Your task to perform on an android device: Turn off the flashlight Image 0: 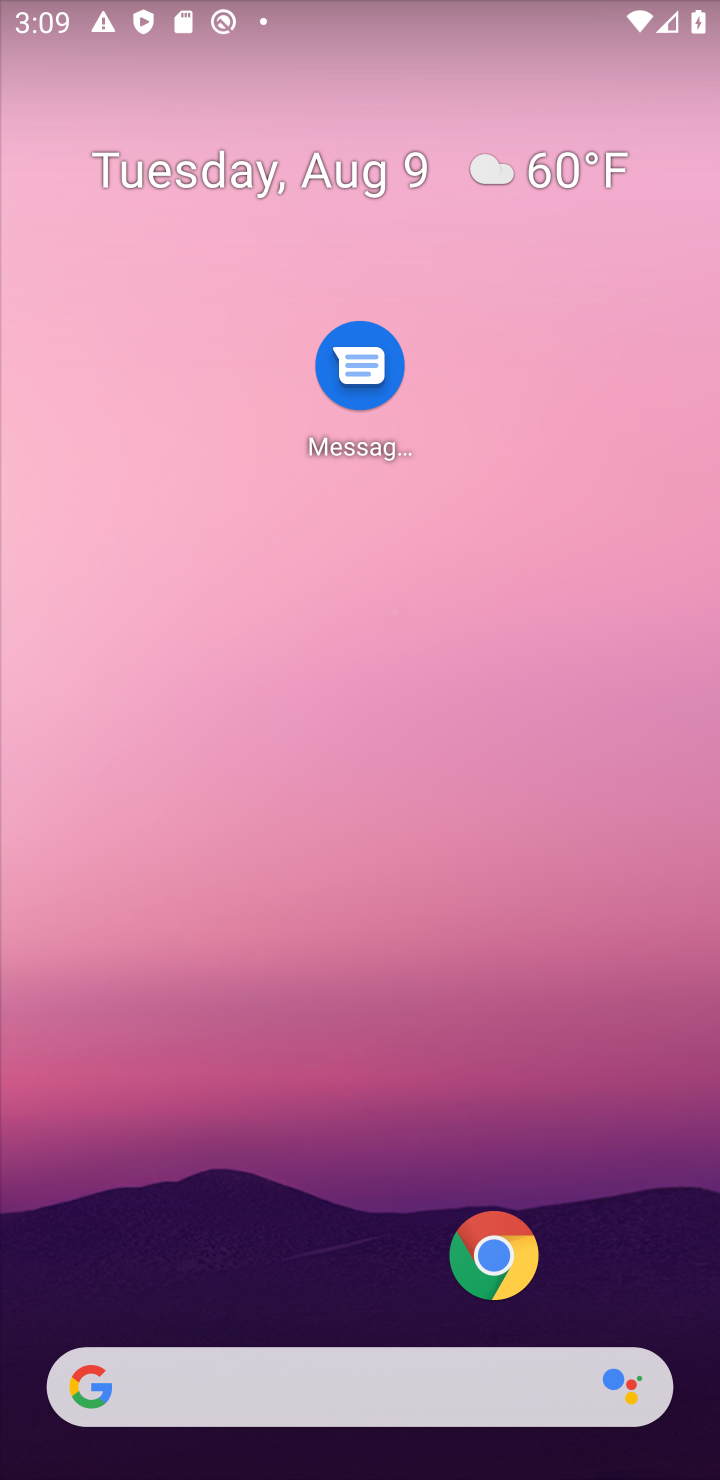
Step 0: drag from (342, 900) to (365, 438)
Your task to perform on an android device: Turn off the flashlight Image 1: 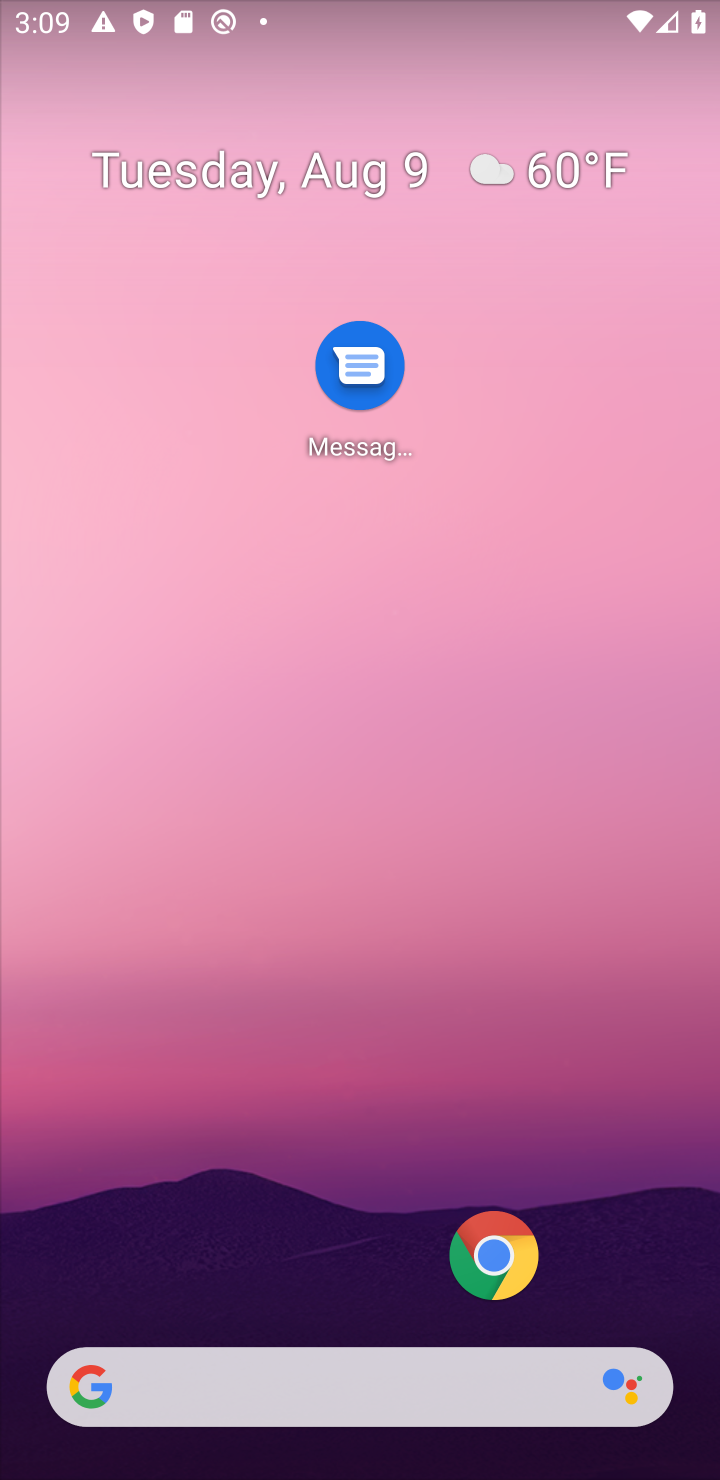
Step 1: drag from (118, 1321) to (312, 467)
Your task to perform on an android device: Turn off the flashlight Image 2: 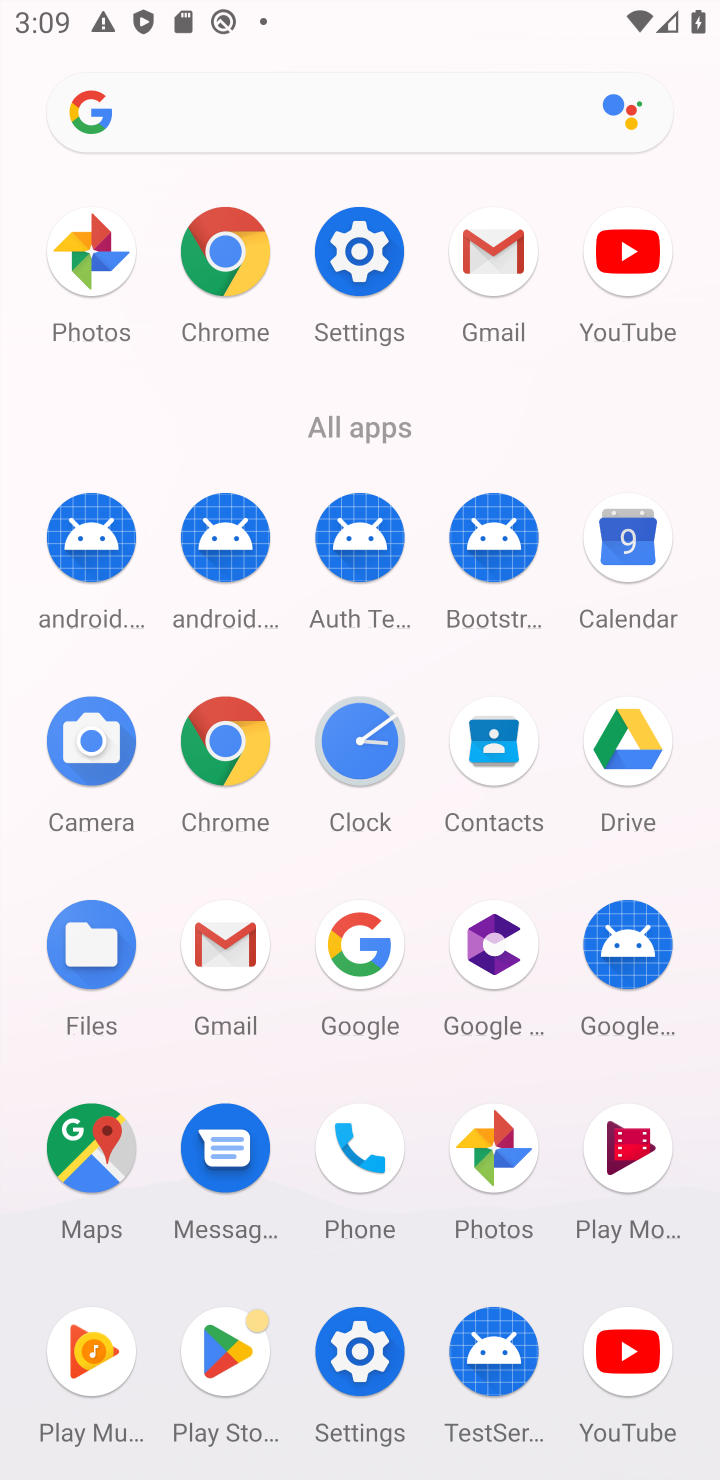
Step 2: click (333, 243)
Your task to perform on an android device: Turn off the flashlight Image 3: 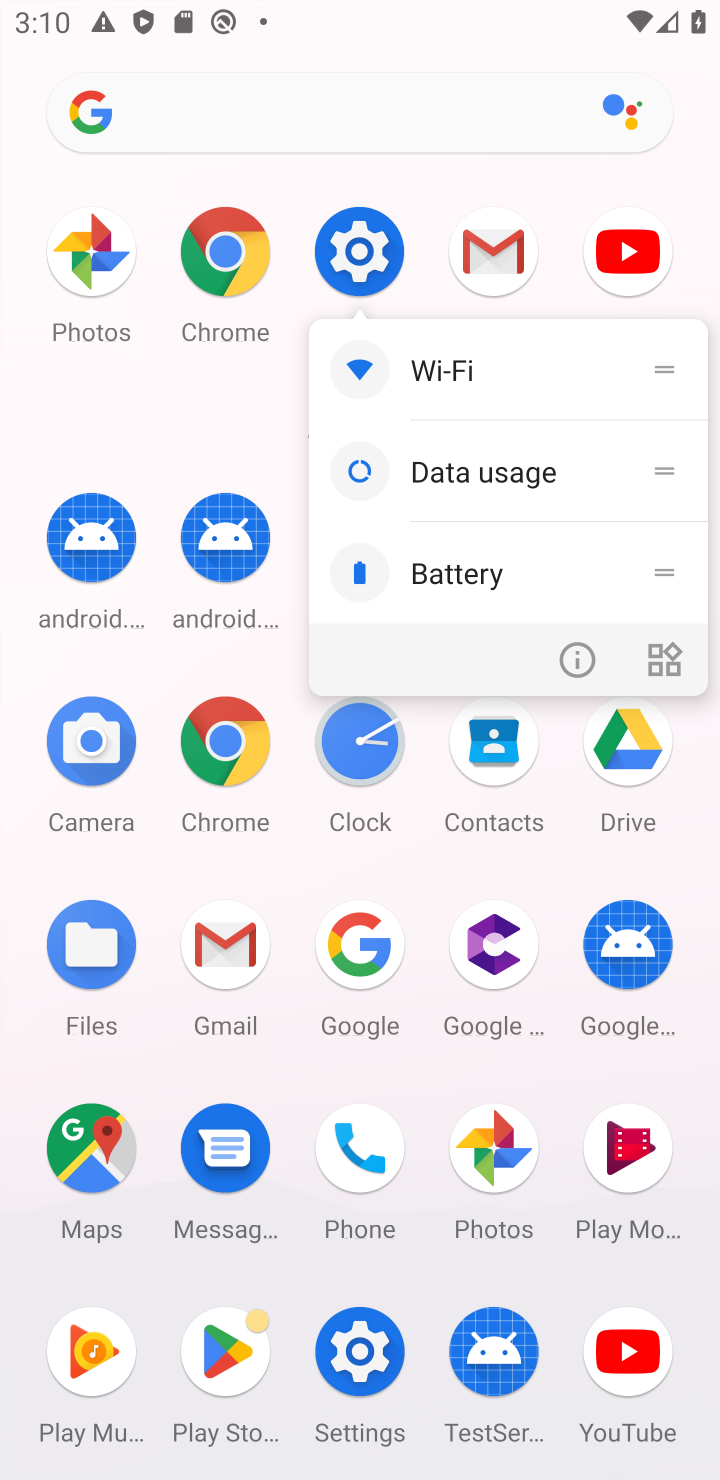
Step 3: click (333, 243)
Your task to perform on an android device: Turn off the flashlight Image 4: 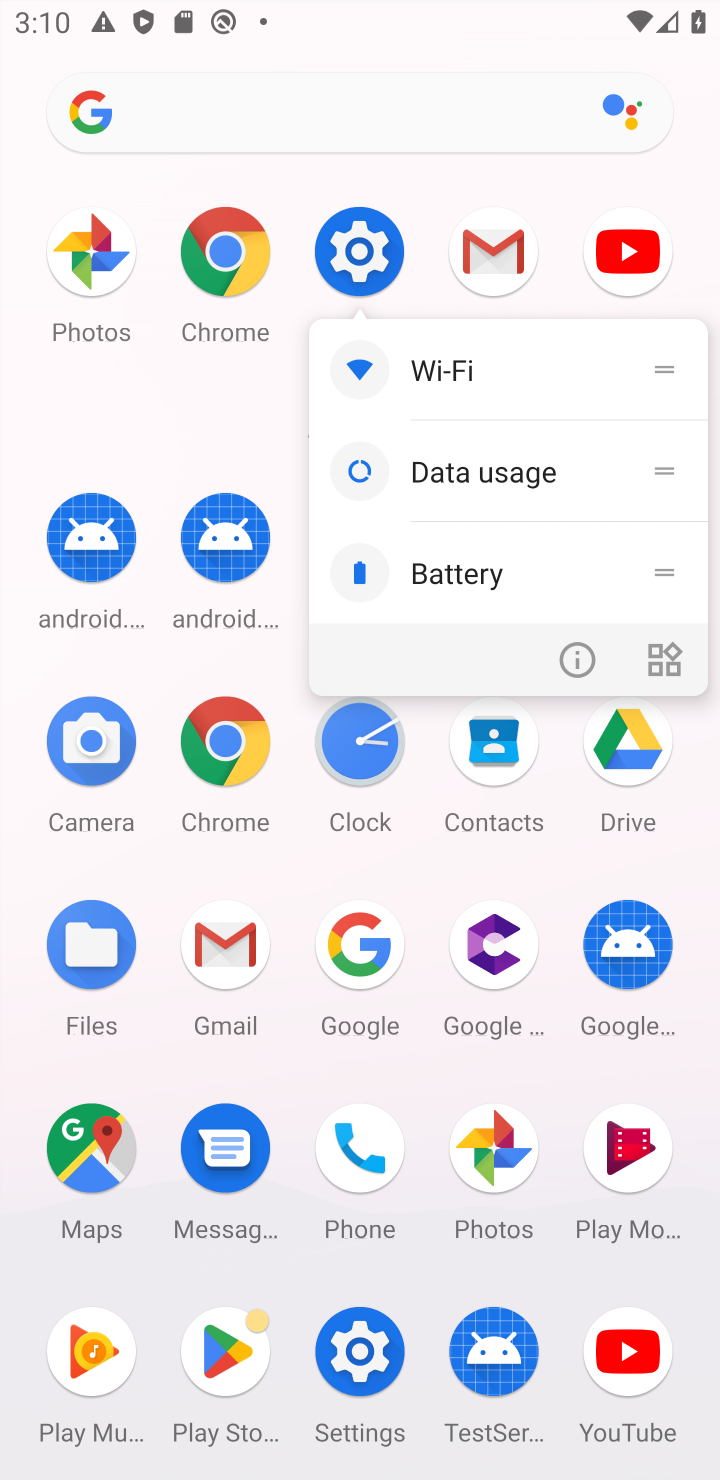
Step 4: click (374, 231)
Your task to perform on an android device: Turn off the flashlight Image 5: 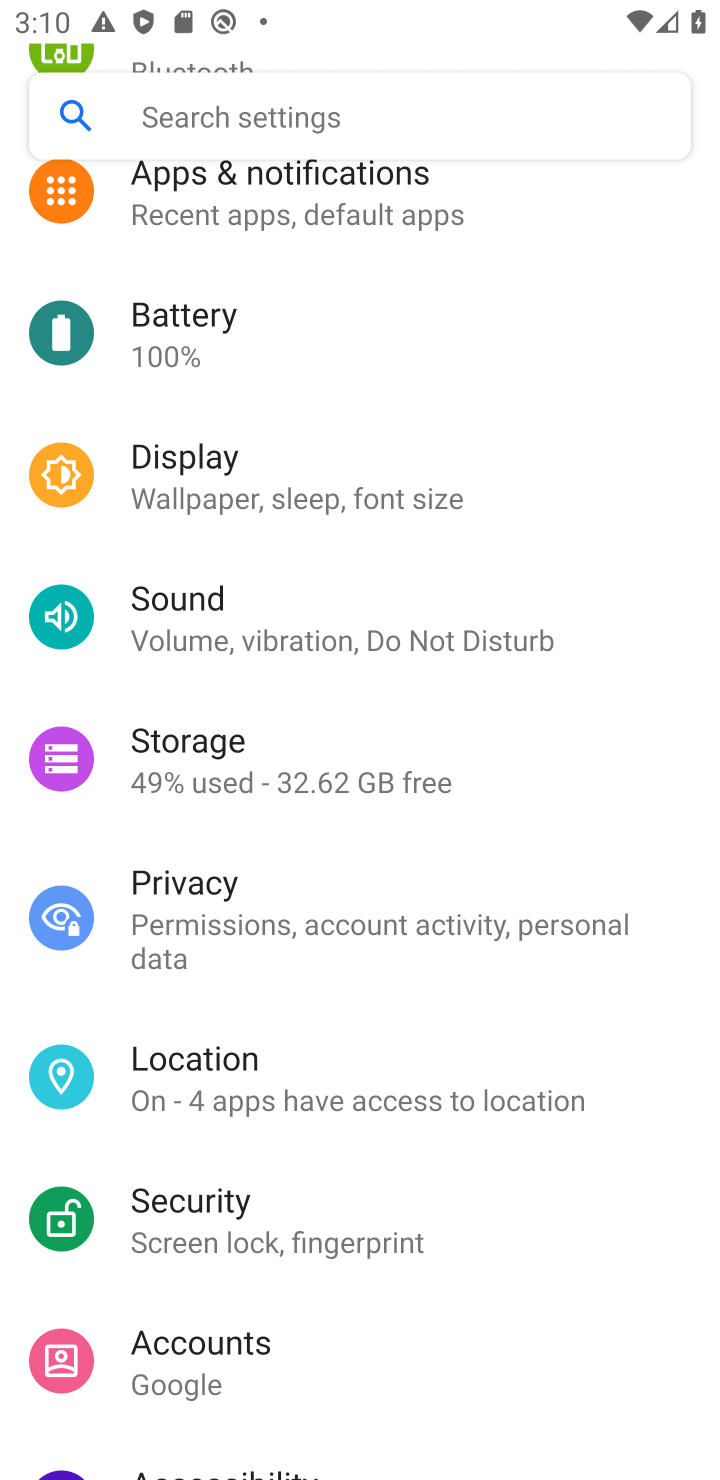
Step 5: task complete